Your task to perform on an android device: Open Chrome and go to settings Image 0: 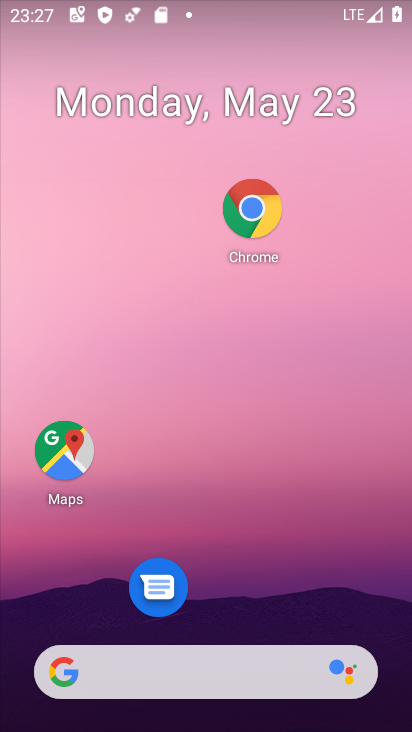
Step 0: drag from (273, 689) to (315, 330)
Your task to perform on an android device: Open Chrome and go to settings Image 1: 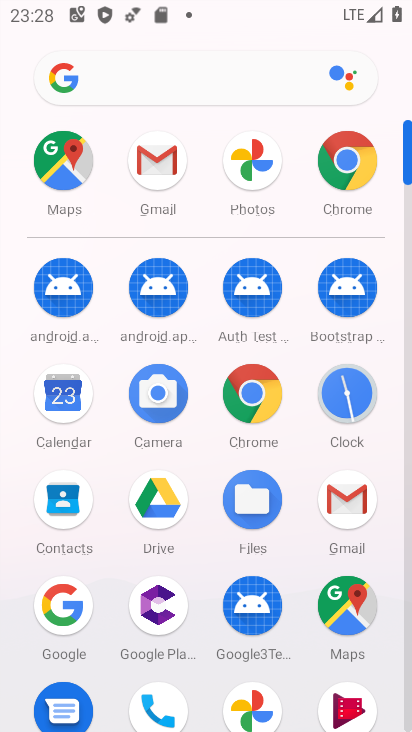
Step 1: click (333, 165)
Your task to perform on an android device: Open Chrome and go to settings Image 2: 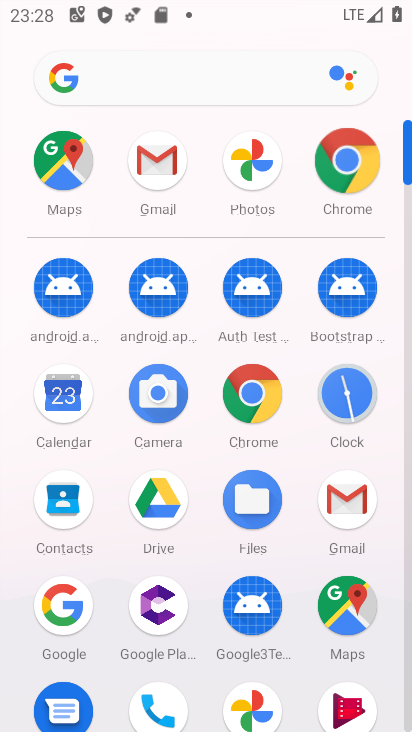
Step 2: click (334, 163)
Your task to perform on an android device: Open Chrome and go to settings Image 3: 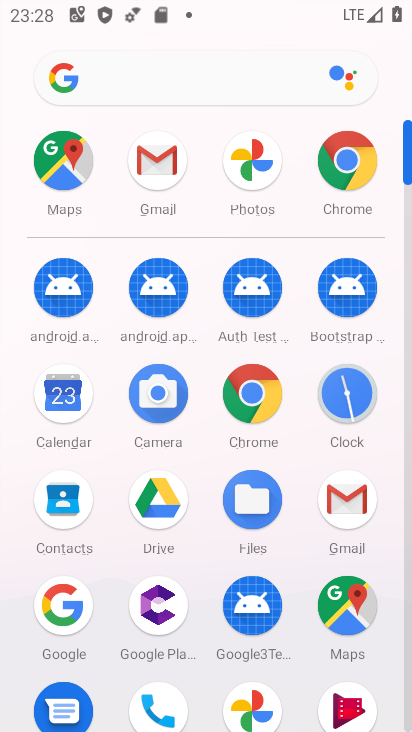
Step 3: click (336, 162)
Your task to perform on an android device: Open Chrome and go to settings Image 4: 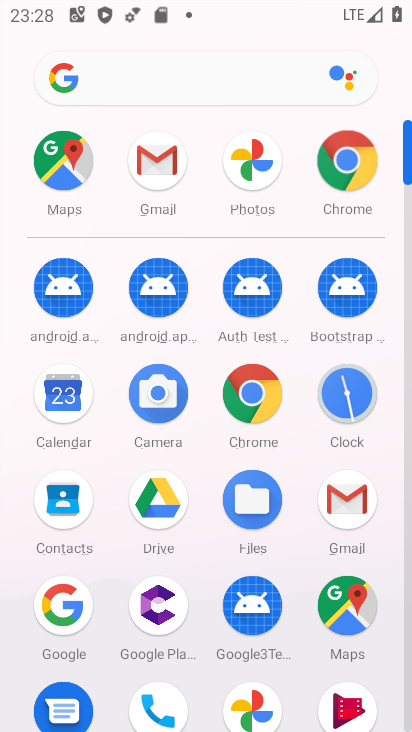
Step 4: click (338, 161)
Your task to perform on an android device: Open Chrome and go to settings Image 5: 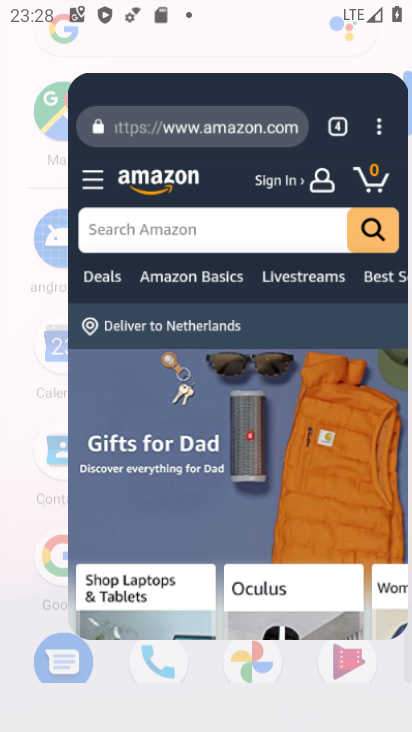
Step 5: click (338, 161)
Your task to perform on an android device: Open Chrome and go to settings Image 6: 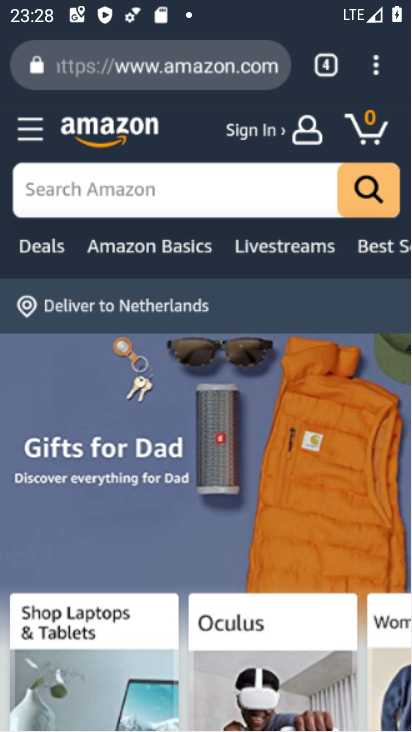
Step 6: click (339, 160)
Your task to perform on an android device: Open Chrome and go to settings Image 7: 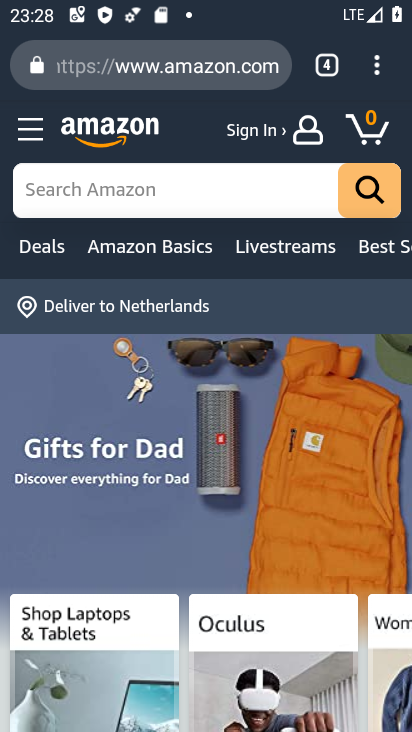
Step 7: drag from (373, 66) to (139, 633)
Your task to perform on an android device: Open Chrome and go to settings Image 8: 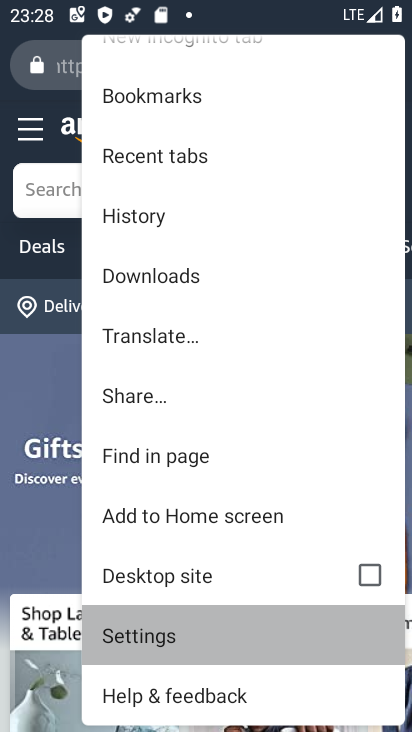
Step 8: click (146, 632)
Your task to perform on an android device: Open Chrome and go to settings Image 9: 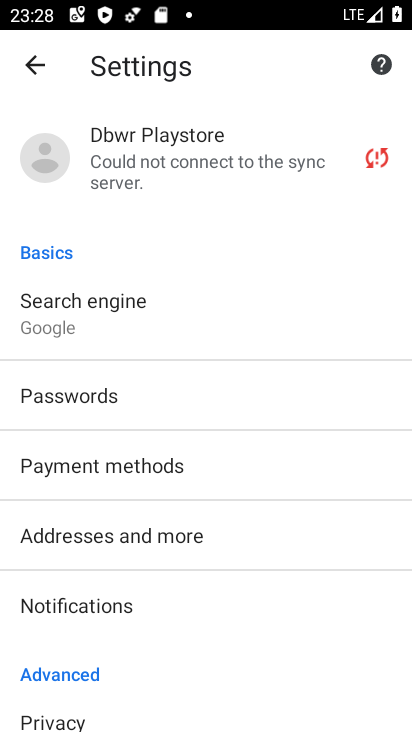
Step 9: task complete